Your task to perform on an android device: turn smart compose on in the gmail app Image 0: 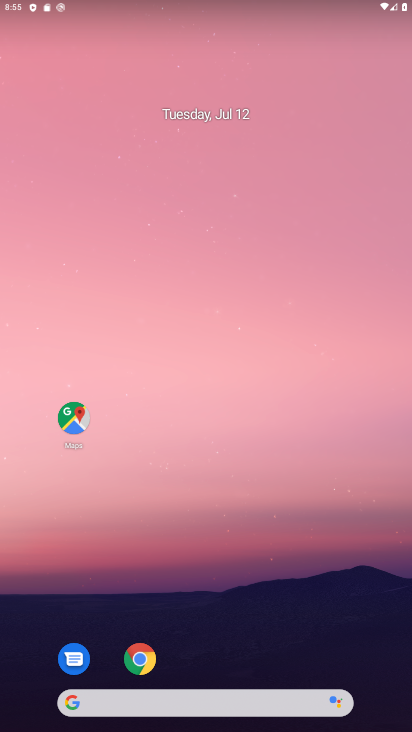
Step 0: drag from (332, 28) to (357, 4)
Your task to perform on an android device: turn smart compose on in the gmail app Image 1: 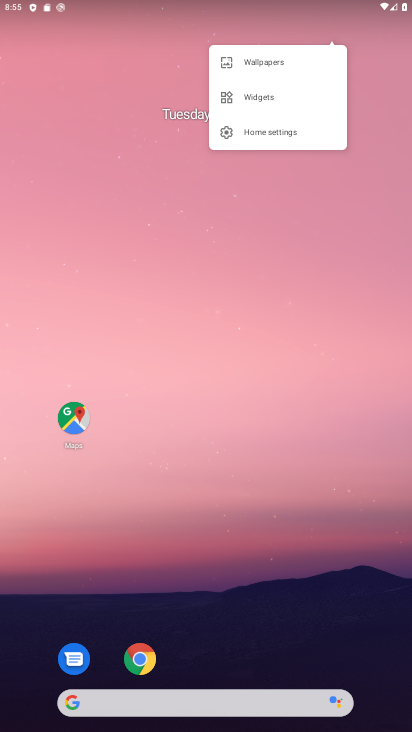
Step 1: drag from (262, 573) to (318, 179)
Your task to perform on an android device: turn smart compose on in the gmail app Image 2: 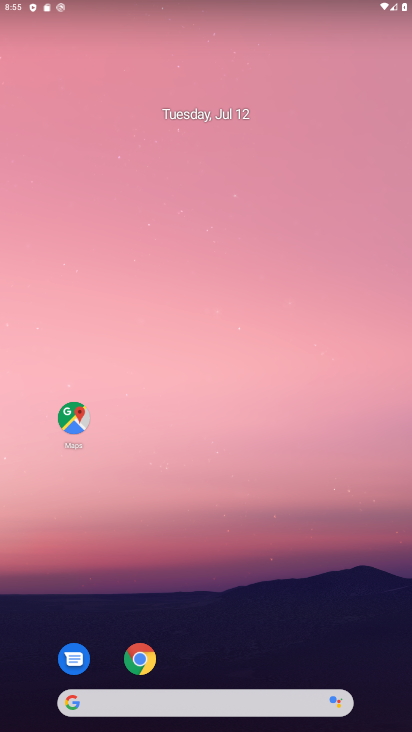
Step 2: drag from (265, 689) to (314, 133)
Your task to perform on an android device: turn smart compose on in the gmail app Image 3: 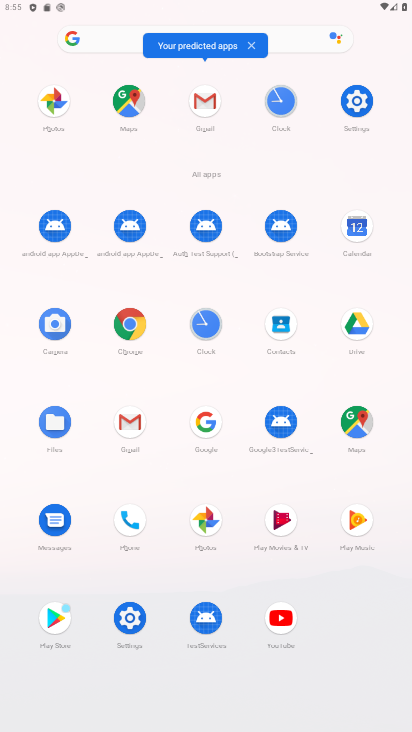
Step 3: click (128, 438)
Your task to perform on an android device: turn smart compose on in the gmail app Image 4: 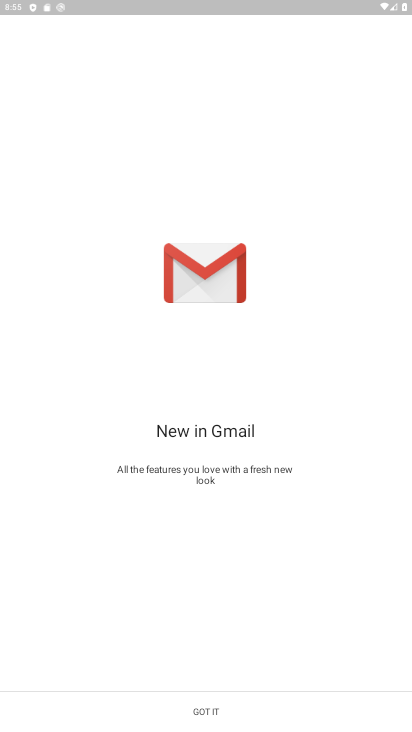
Step 4: click (249, 711)
Your task to perform on an android device: turn smart compose on in the gmail app Image 5: 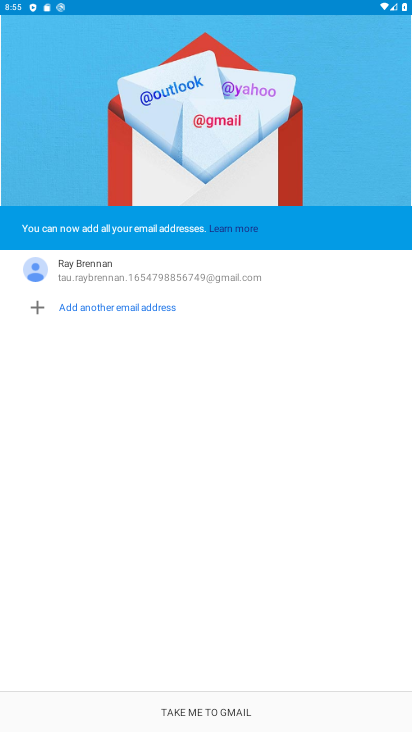
Step 5: click (249, 711)
Your task to perform on an android device: turn smart compose on in the gmail app Image 6: 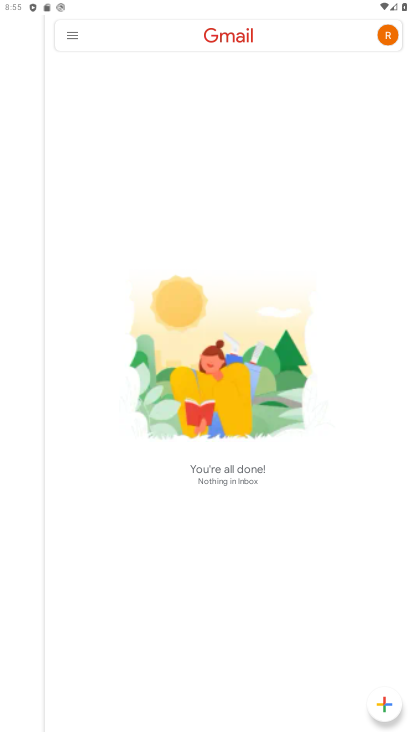
Step 6: click (59, 41)
Your task to perform on an android device: turn smart compose on in the gmail app Image 7: 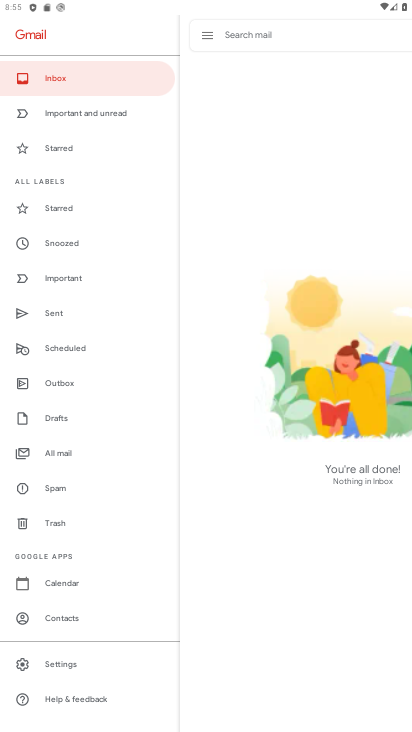
Step 7: click (109, 668)
Your task to perform on an android device: turn smart compose on in the gmail app Image 8: 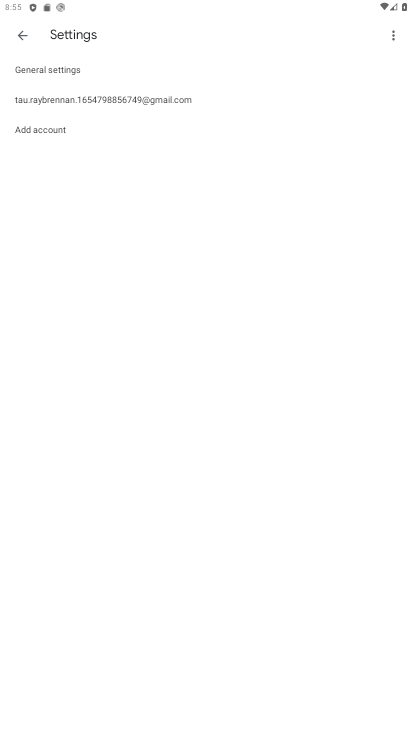
Step 8: click (215, 101)
Your task to perform on an android device: turn smart compose on in the gmail app Image 9: 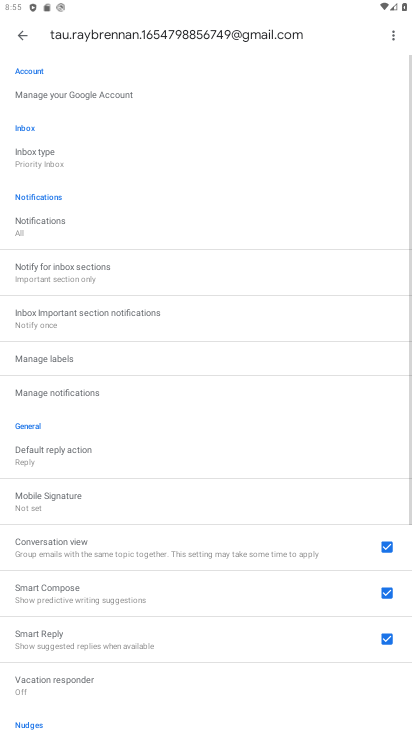
Step 9: task complete